Your task to perform on an android device: Find coffee shops on Maps Image 0: 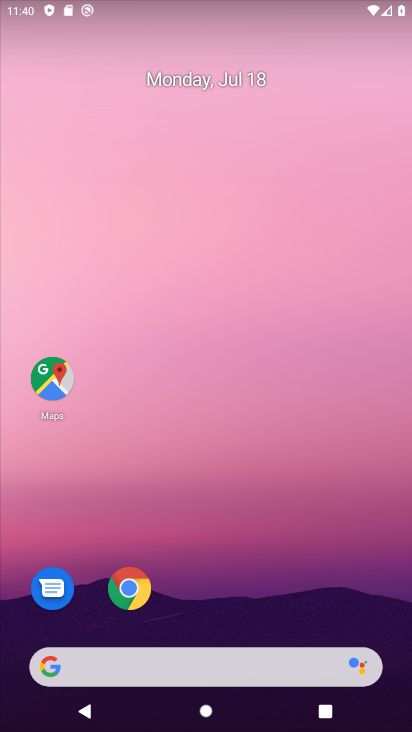
Step 0: drag from (199, 430) to (196, 95)
Your task to perform on an android device: Find coffee shops on Maps Image 1: 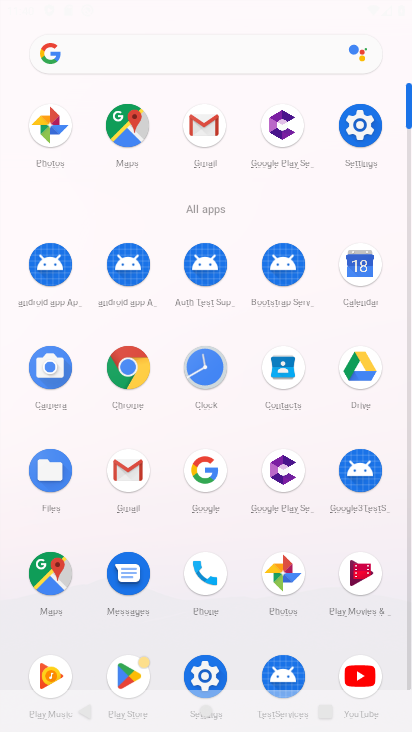
Step 1: click (46, 570)
Your task to perform on an android device: Find coffee shops on Maps Image 2: 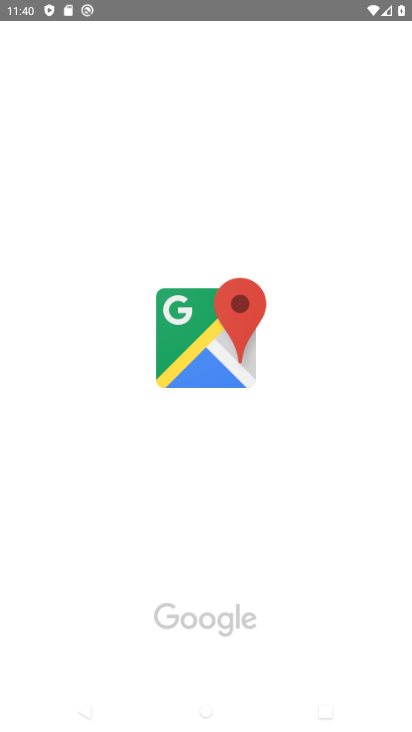
Step 2: click (194, 342)
Your task to perform on an android device: Find coffee shops on Maps Image 3: 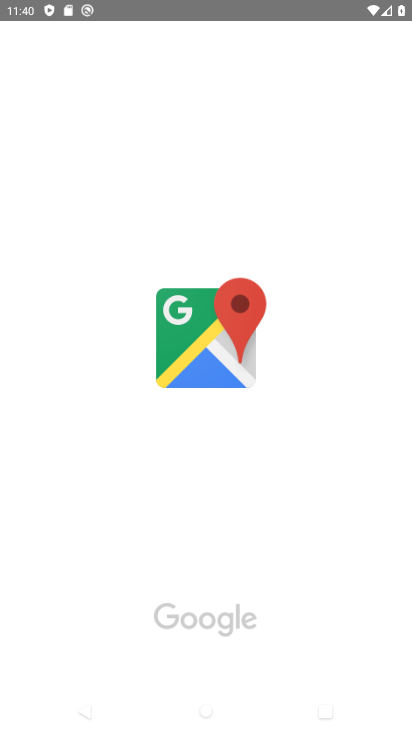
Step 3: click (199, 339)
Your task to perform on an android device: Find coffee shops on Maps Image 4: 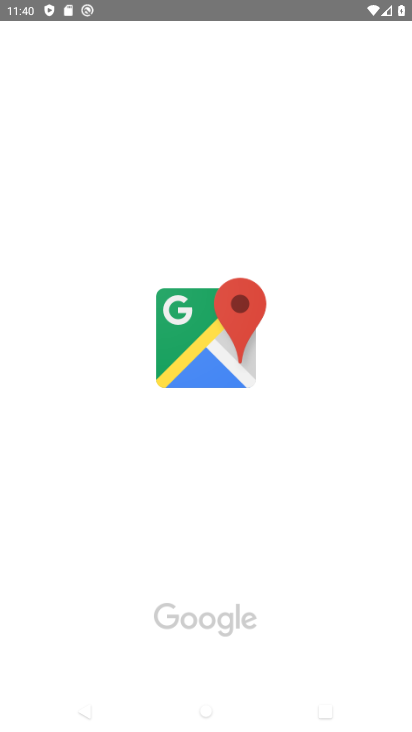
Step 4: click (200, 338)
Your task to perform on an android device: Find coffee shops on Maps Image 5: 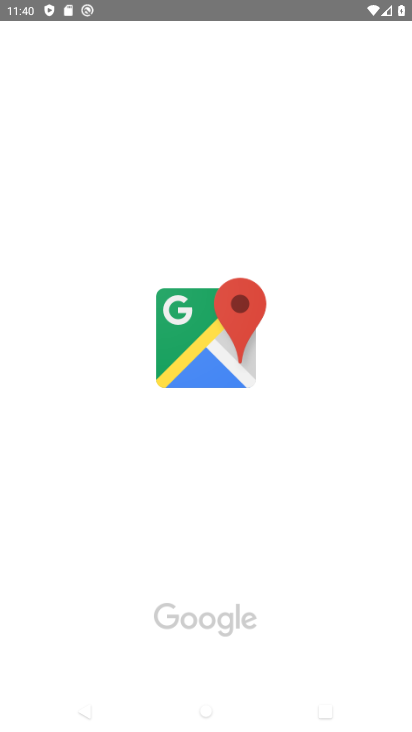
Step 5: click (209, 337)
Your task to perform on an android device: Find coffee shops on Maps Image 6: 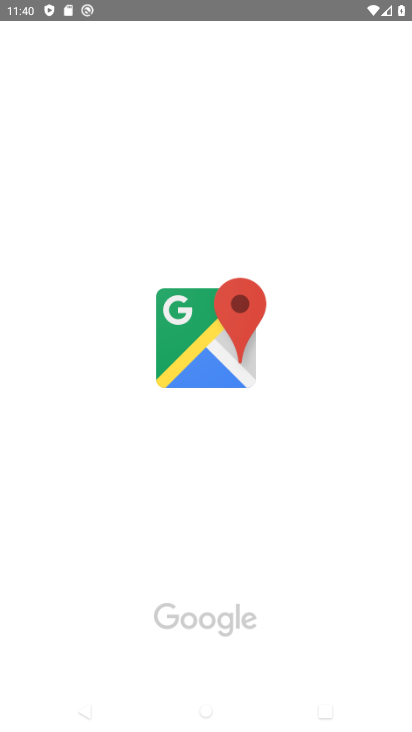
Step 6: click (205, 288)
Your task to perform on an android device: Find coffee shops on Maps Image 7: 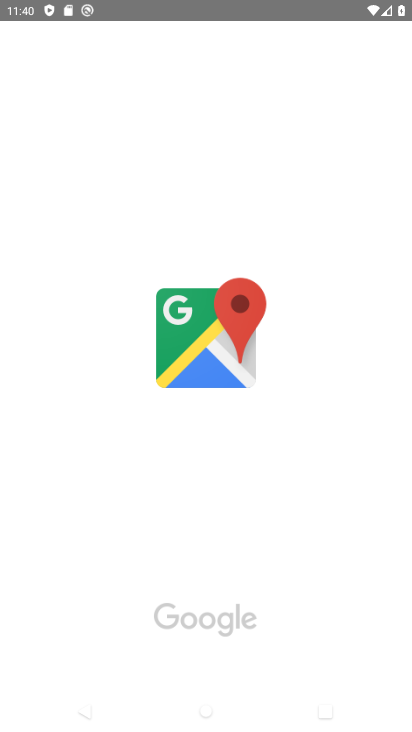
Step 7: click (195, 312)
Your task to perform on an android device: Find coffee shops on Maps Image 8: 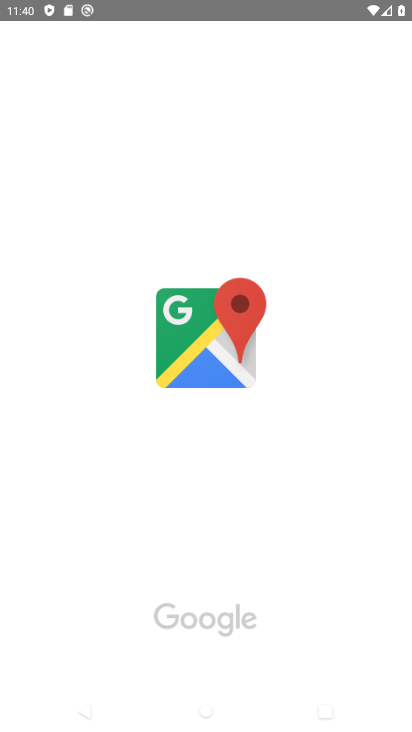
Step 8: click (196, 322)
Your task to perform on an android device: Find coffee shops on Maps Image 9: 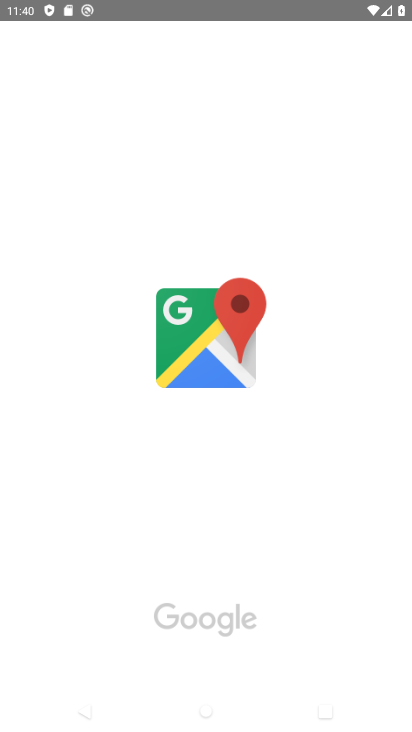
Step 9: click (192, 320)
Your task to perform on an android device: Find coffee shops on Maps Image 10: 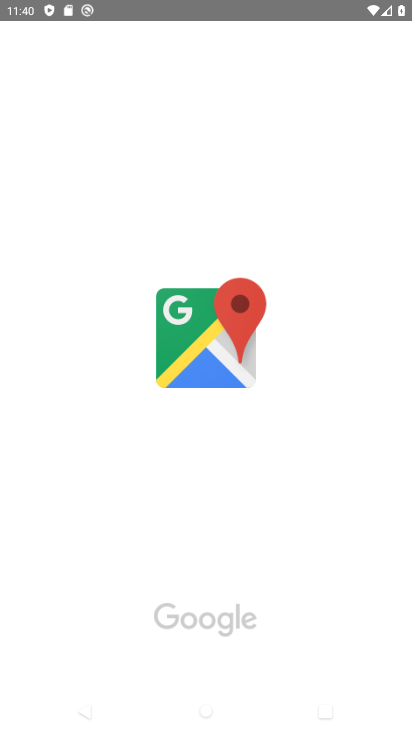
Step 10: click (191, 319)
Your task to perform on an android device: Find coffee shops on Maps Image 11: 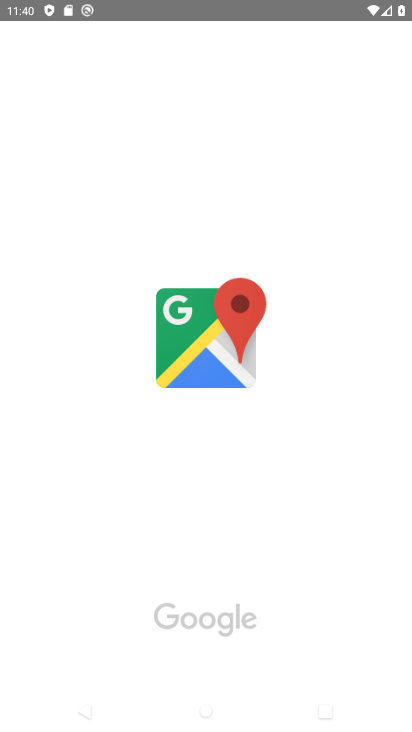
Step 11: click (199, 339)
Your task to perform on an android device: Find coffee shops on Maps Image 12: 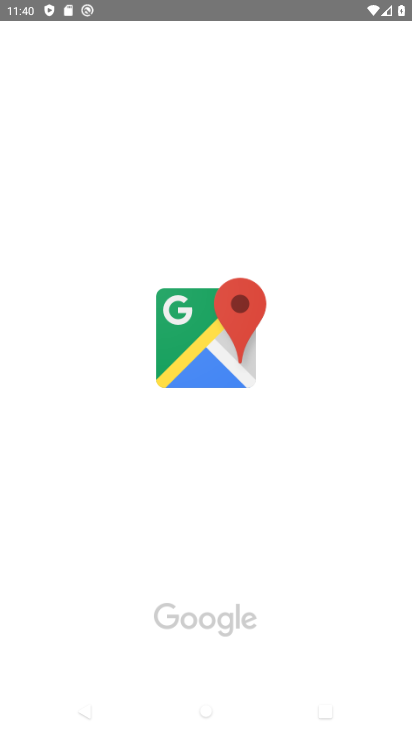
Step 12: click (202, 342)
Your task to perform on an android device: Find coffee shops on Maps Image 13: 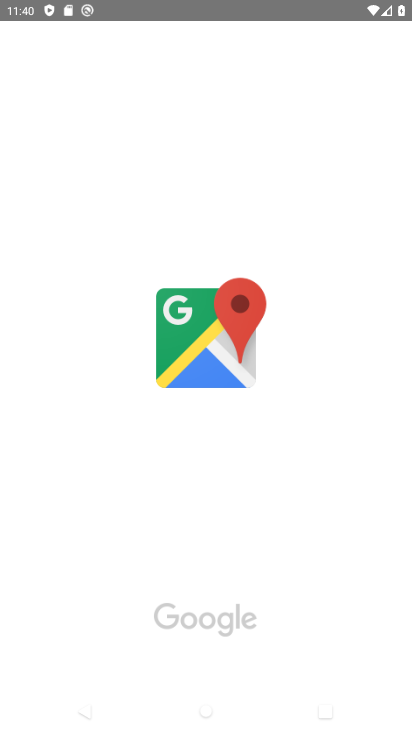
Step 13: click (206, 352)
Your task to perform on an android device: Find coffee shops on Maps Image 14: 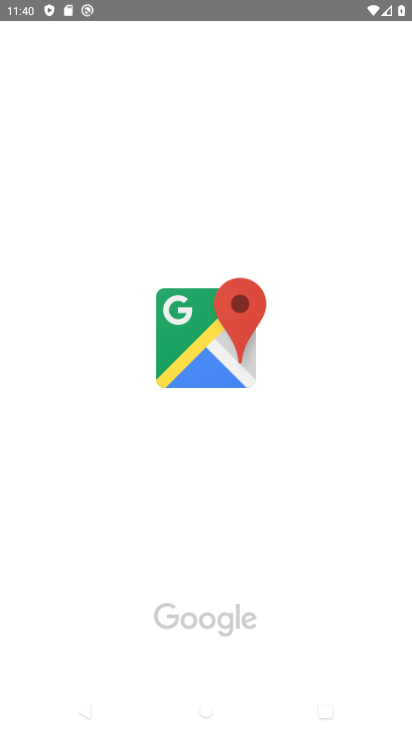
Step 14: click (205, 354)
Your task to perform on an android device: Find coffee shops on Maps Image 15: 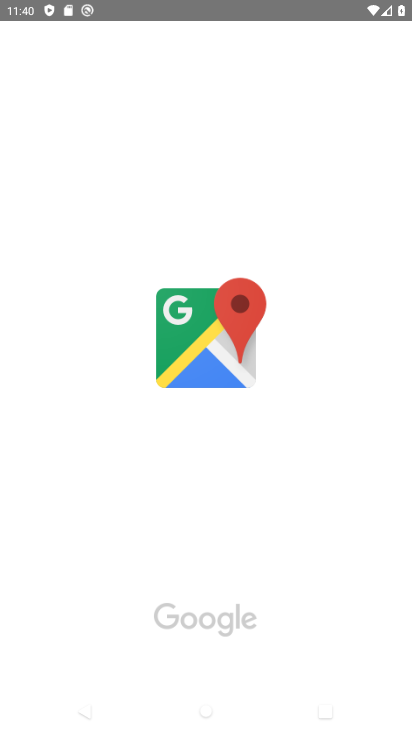
Step 15: click (205, 352)
Your task to perform on an android device: Find coffee shops on Maps Image 16: 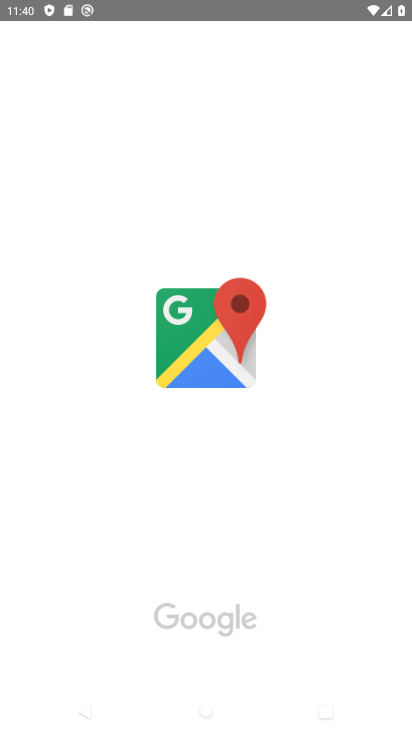
Step 16: click (203, 352)
Your task to perform on an android device: Find coffee shops on Maps Image 17: 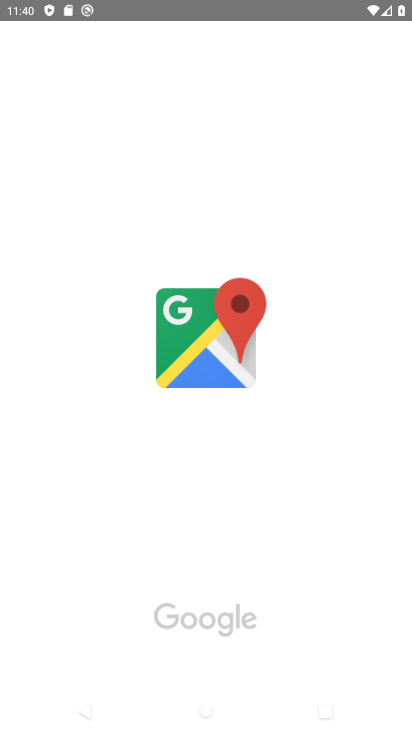
Step 17: click (201, 352)
Your task to perform on an android device: Find coffee shops on Maps Image 18: 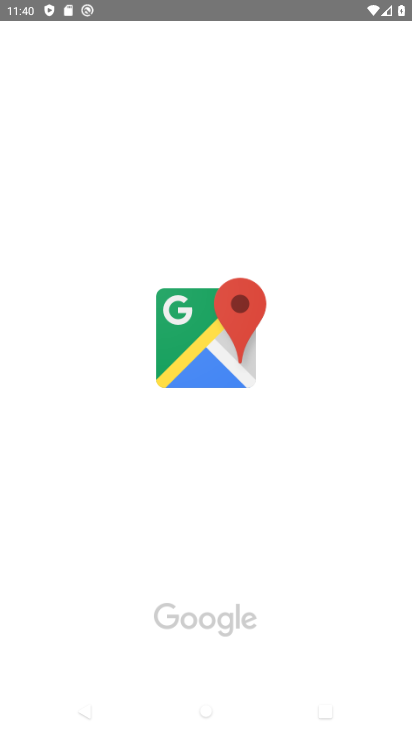
Step 18: click (199, 352)
Your task to perform on an android device: Find coffee shops on Maps Image 19: 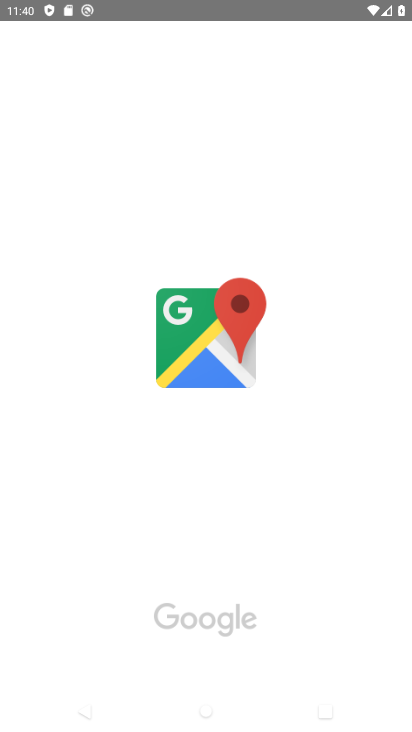
Step 19: click (217, 339)
Your task to perform on an android device: Find coffee shops on Maps Image 20: 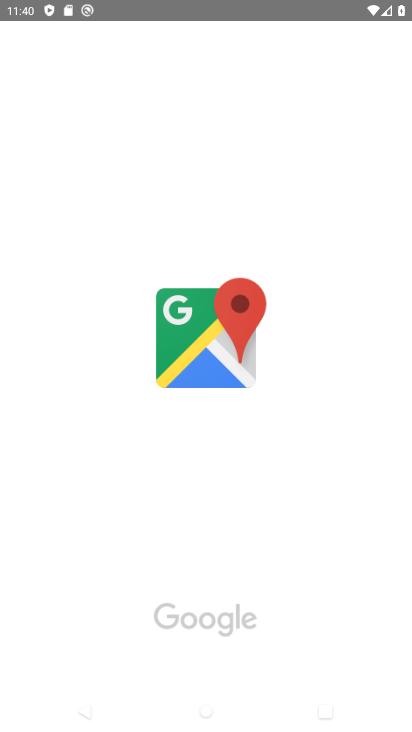
Step 20: click (200, 335)
Your task to perform on an android device: Find coffee shops on Maps Image 21: 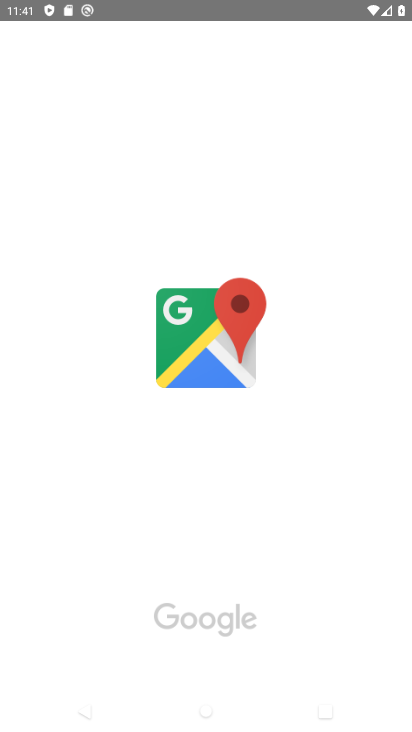
Step 21: task complete